Your task to perform on an android device: change notification settings in the gmail app Image 0: 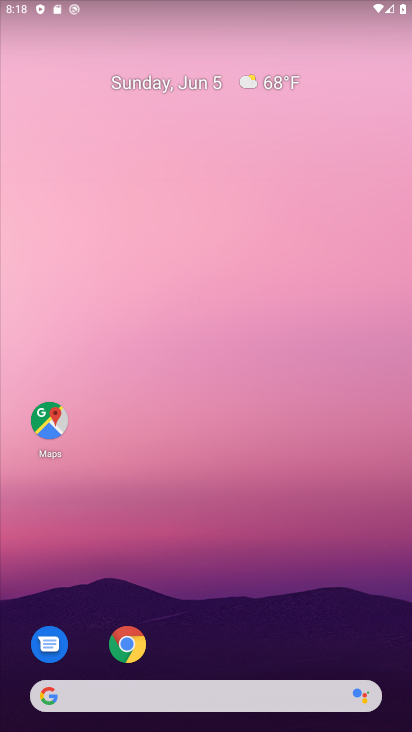
Step 0: task complete